Your task to perform on an android device: Go to Yahoo.com Image 0: 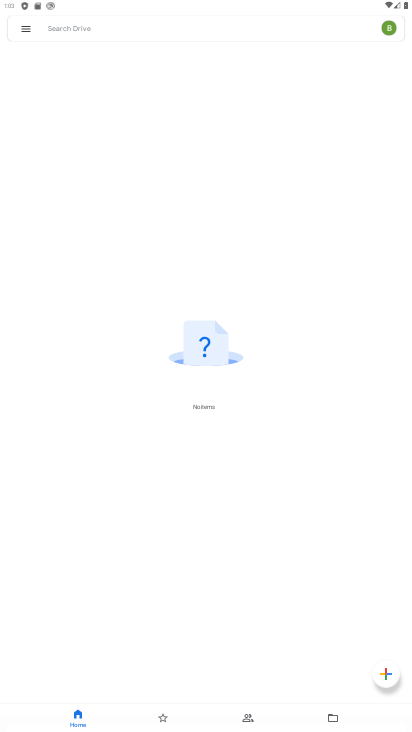
Step 0: press home button
Your task to perform on an android device: Go to Yahoo.com Image 1: 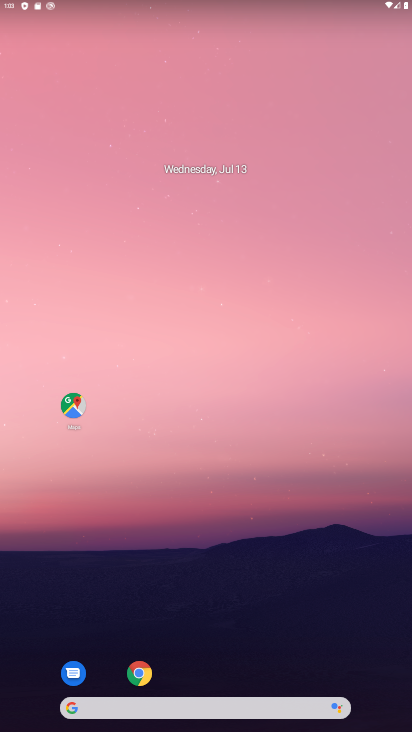
Step 1: click (147, 666)
Your task to perform on an android device: Go to Yahoo.com Image 2: 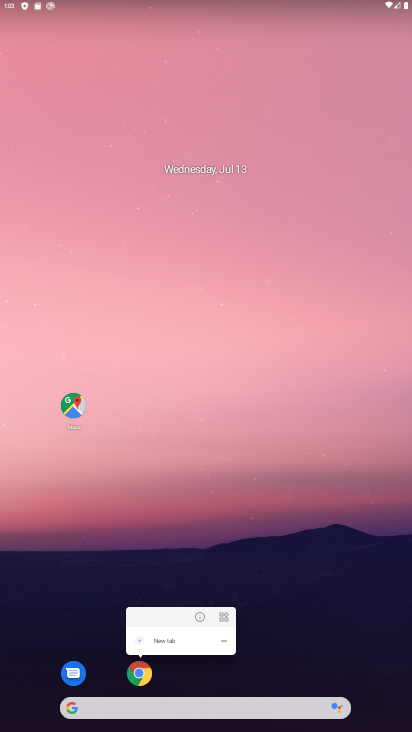
Step 2: click (143, 672)
Your task to perform on an android device: Go to Yahoo.com Image 3: 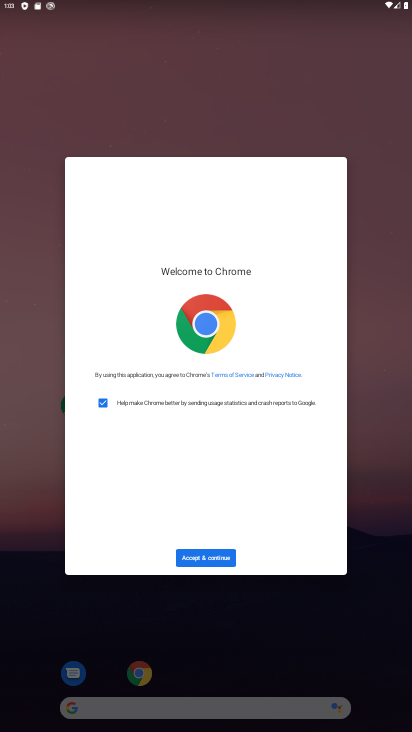
Step 3: click (207, 560)
Your task to perform on an android device: Go to Yahoo.com Image 4: 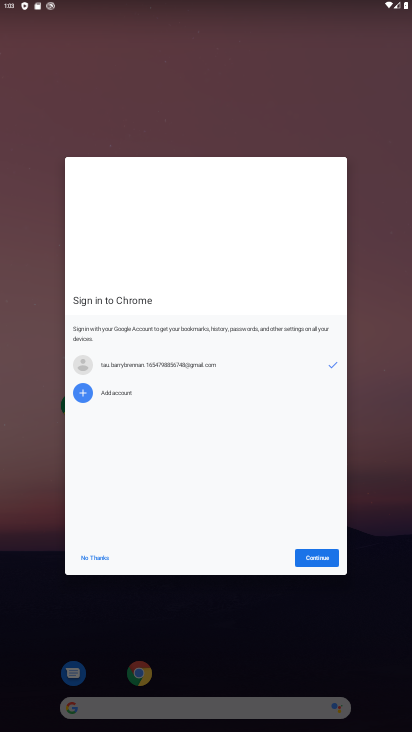
Step 4: click (308, 572)
Your task to perform on an android device: Go to Yahoo.com Image 5: 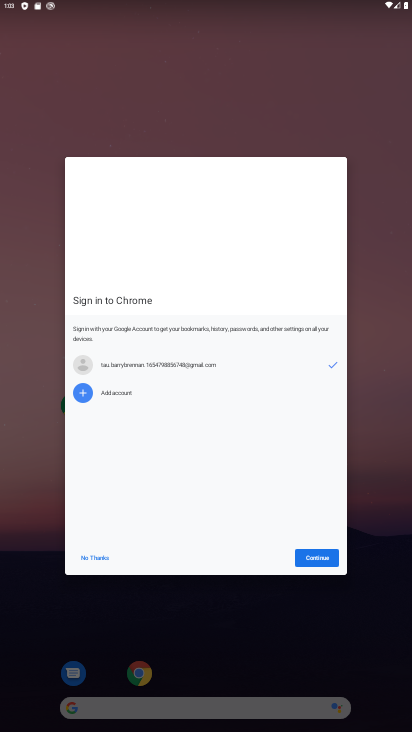
Step 5: click (311, 565)
Your task to perform on an android device: Go to Yahoo.com Image 6: 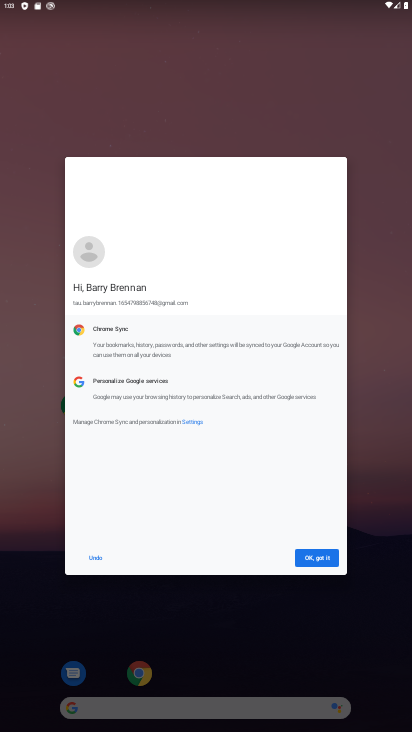
Step 6: click (319, 552)
Your task to perform on an android device: Go to Yahoo.com Image 7: 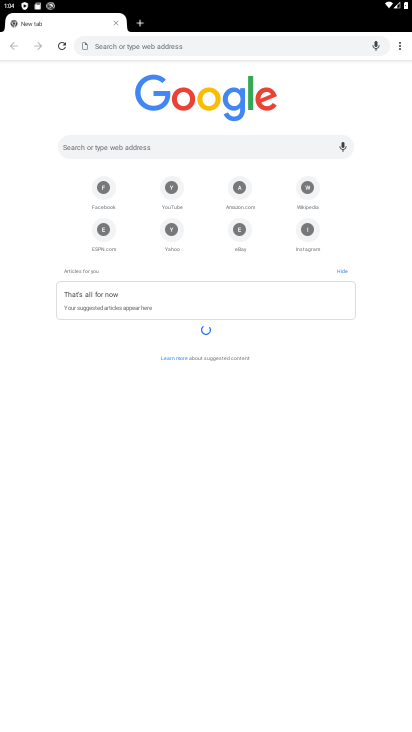
Step 7: click (173, 236)
Your task to perform on an android device: Go to Yahoo.com Image 8: 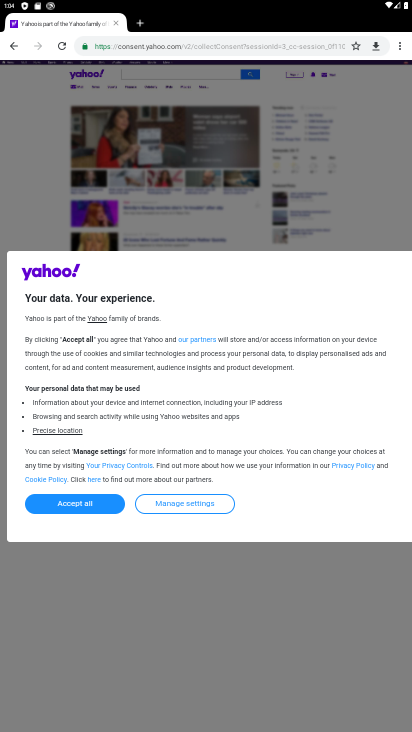
Step 8: click (98, 508)
Your task to perform on an android device: Go to Yahoo.com Image 9: 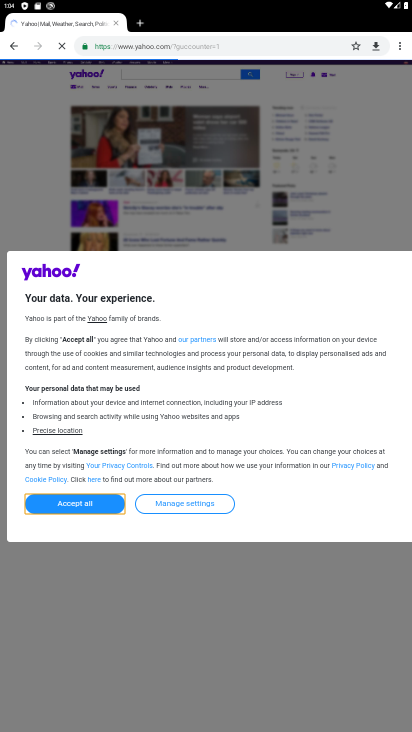
Step 9: task complete